Your task to perform on an android device: check storage Image 0: 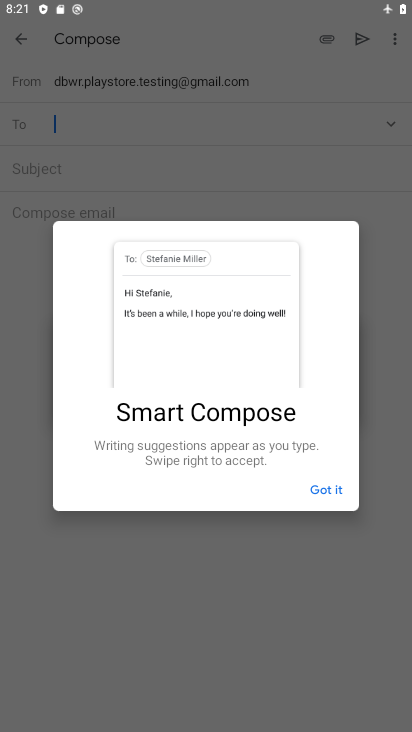
Step 0: press home button
Your task to perform on an android device: check storage Image 1: 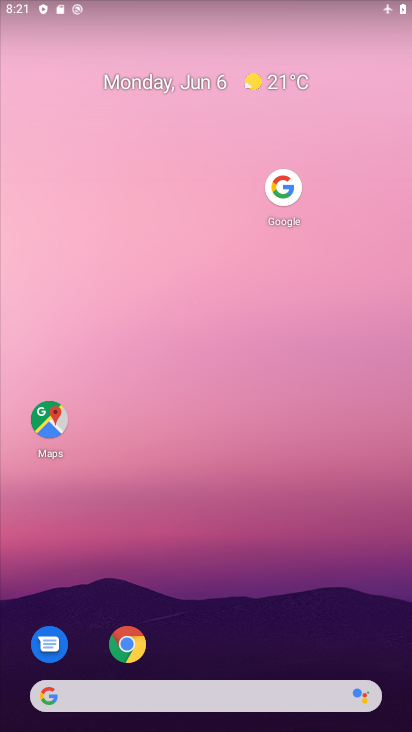
Step 1: drag from (216, 667) to (178, 97)
Your task to perform on an android device: check storage Image 2: 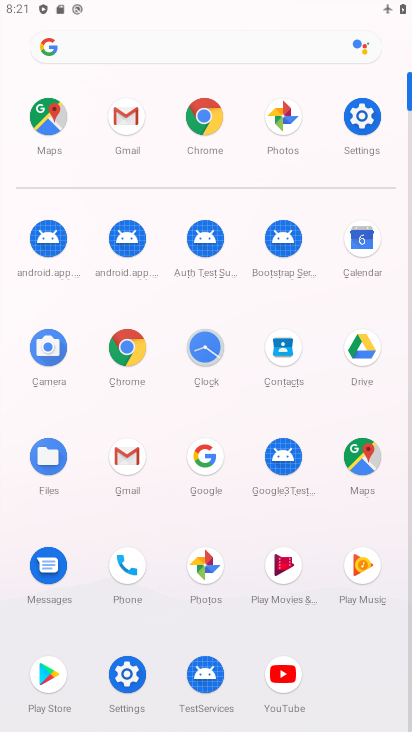
Step 2: click (357, 112)
Your task to perform on an android device: check storage Image 3: 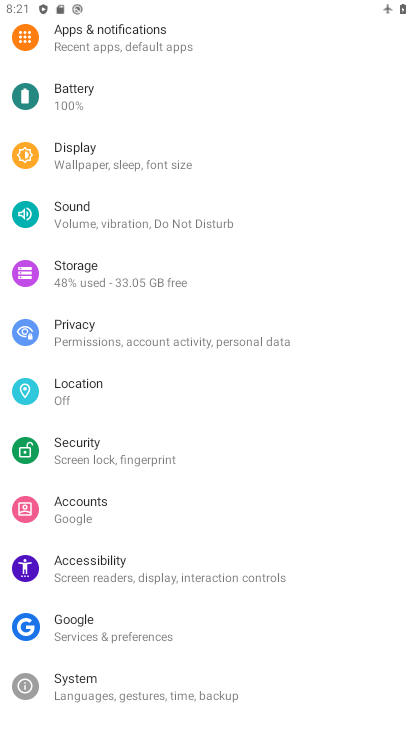
Step 3: click (64, 272)
Your task to perform on an android device: check storage Image 4: 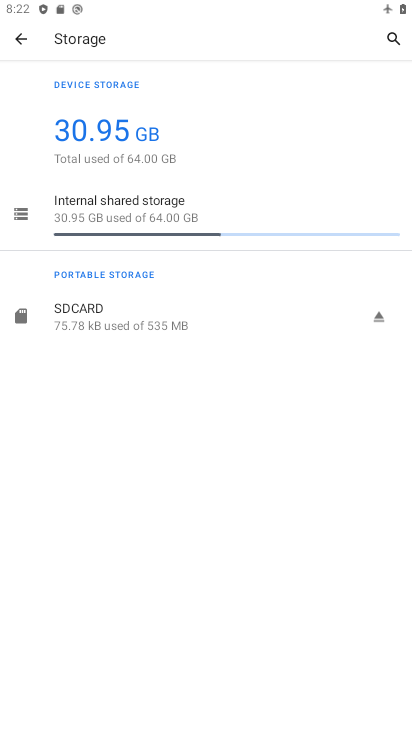
Step 4: click (156, 197)
Your task to perform on an android device: check storage Image 5: 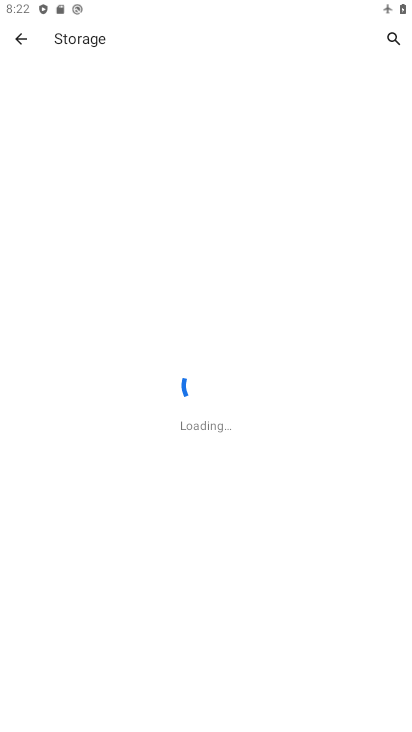
Step 5: task complete